Your task to perform on an android device: open app "WhatsApp Messenger" (install if not already installed) Image 0: 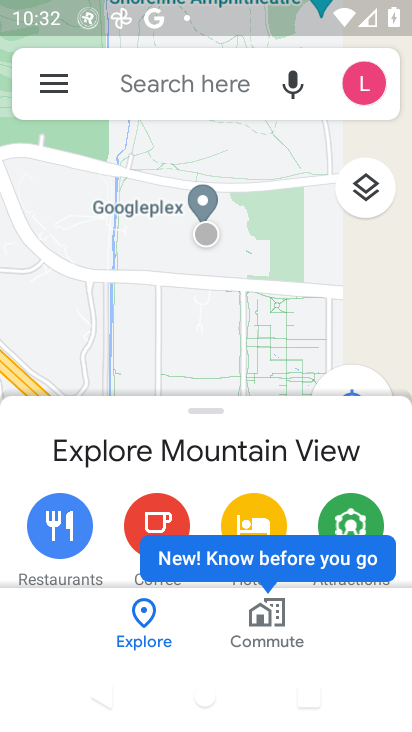
Step 0: press back button
Your task to perform on an android device: open app "WhatsApp Messenger" (install if not already installed) Image 1: 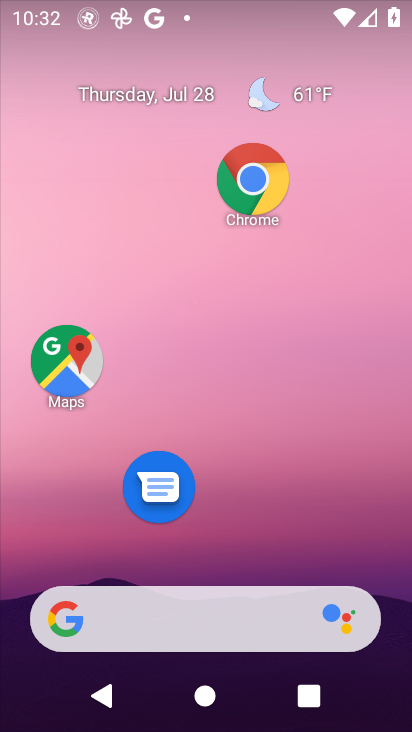
Step 1: drag from (238, 581) to (183, 88)
Your task to perform on an android device: open app "WhatsApp Messenger" (install if not already installed) Image 2: 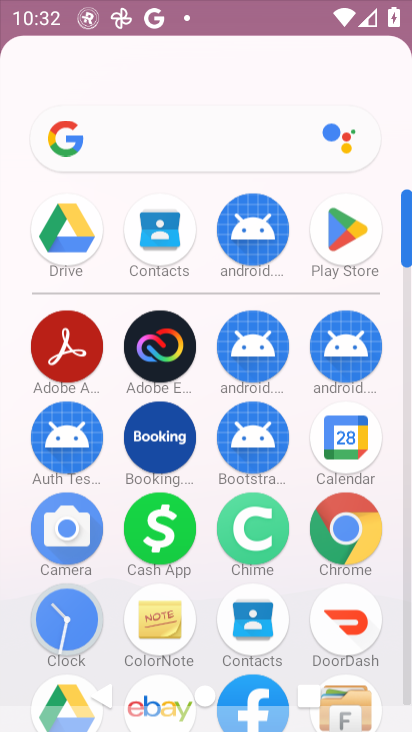
Step 2: drag from (289, 476) to (265, 256)
Your task to perform on an android device: open app "WhatsApp Messenger" (install if not already installed) Image 3: 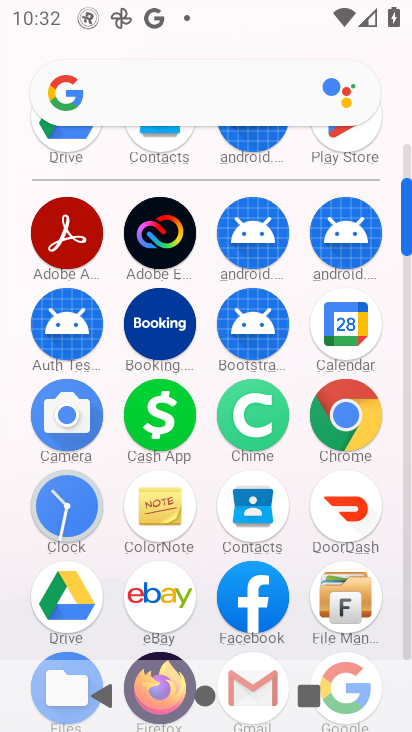
Step 3: click (303, 494)
Your task to perform on an android device: open app "WhatsApp Messenger" (install if not already installed) Image 4: 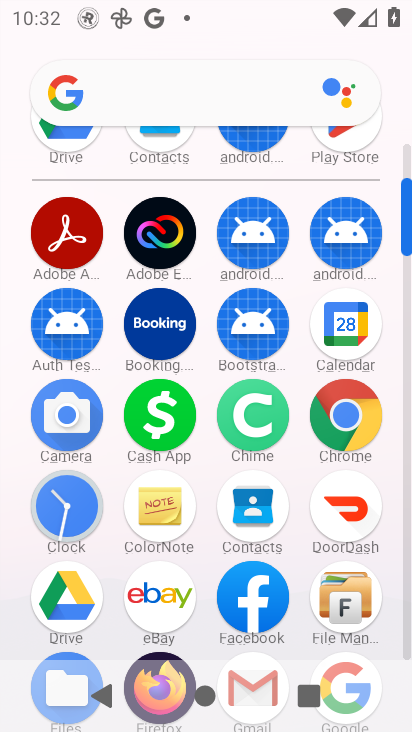
Step 4: drag from (304, 268) to (290, 454)
Your task to perform on an android device: open app "WhatsApp Messenger" (install if not already installed) Image 5: 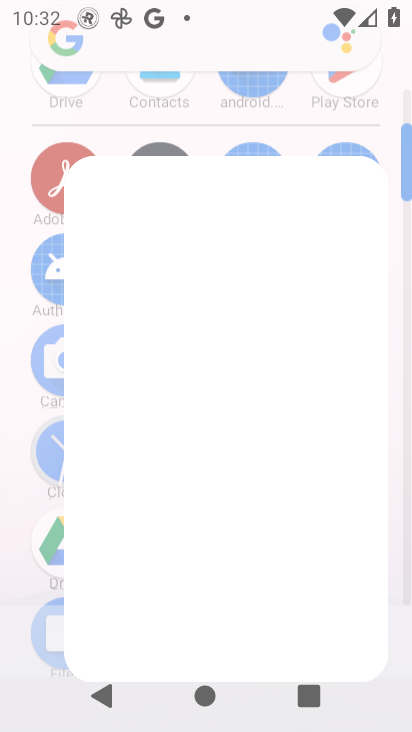
Step 5: drag from (278, 354) to (295, 440)
Your task to perform on an android device: open app "WhatsApp Messenger" (install if not already installed) Image 6: 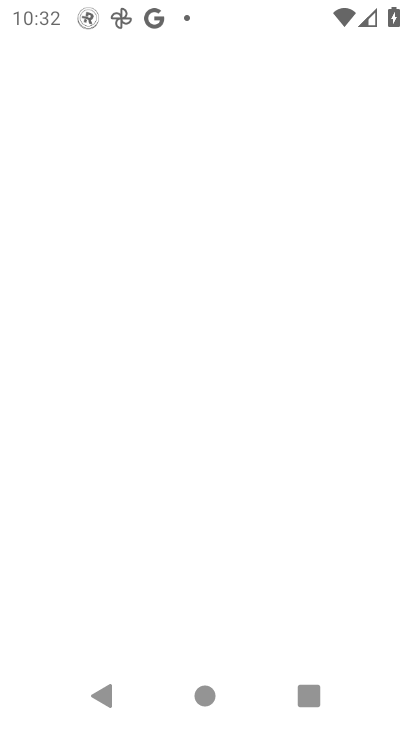
Step 6: press back button
Your task to perform on an android device: open app "WhatsApp Messenger" (install if not already installed) Image 7: 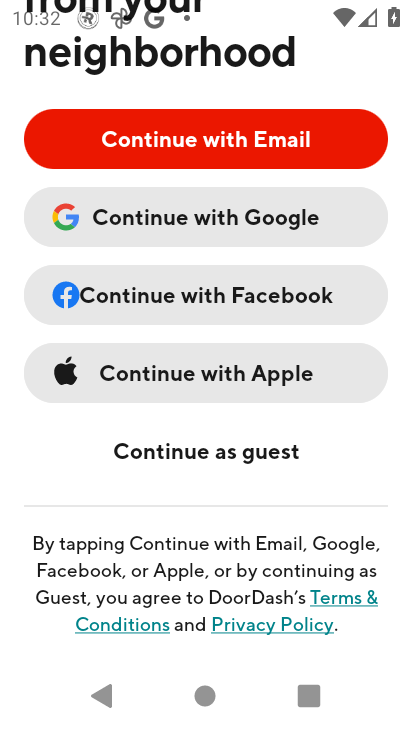
Step 7: press home button
Your task to perform on an android device: open app "WhatsApp Messenger" (install if not already installed) Image 8: 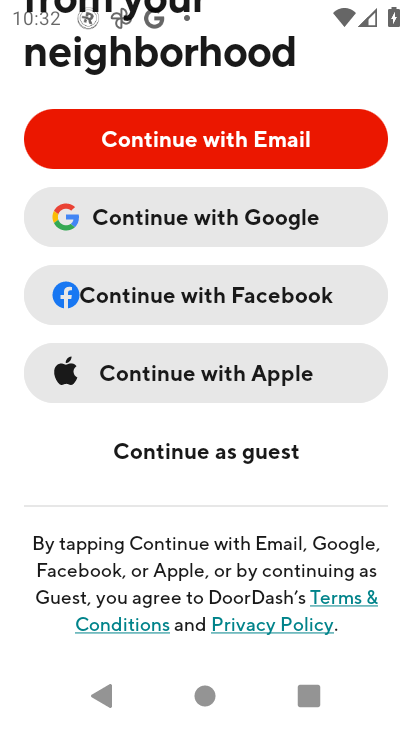
Step 8: press home button
Your task to perform on an android device: open app "WhatsApp Messenger" (install if not already installed) Image 9: 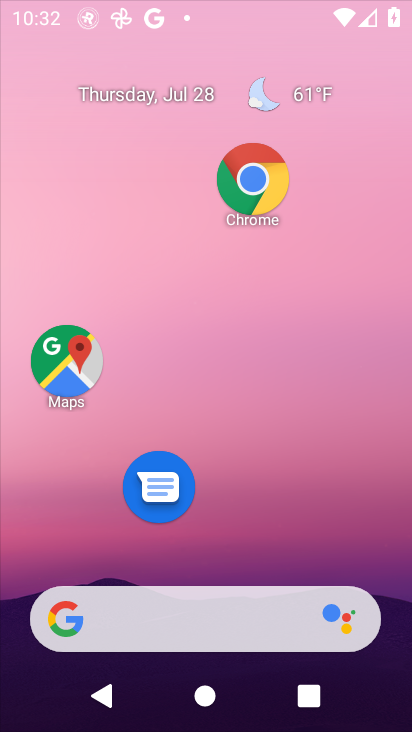
Step 9: press back button
Your task to perform on an android device: open app "WhatsApp Messenger" (install if not already installed) Image 10: 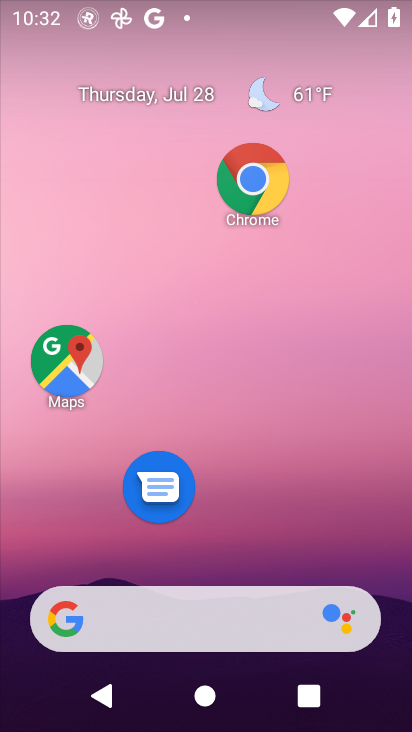
Step 10: click (227, 215)
Your task to perform on an android device: open app "WhatsApp Messenger" (install if not already installed) Image 11: 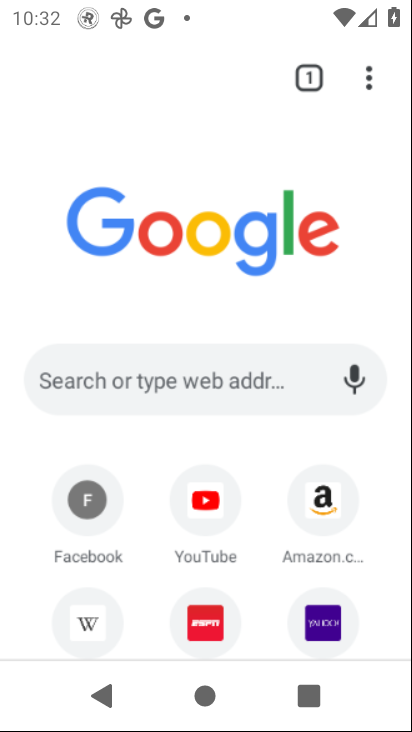
Step 11: drag from (242, 381) to (204, 139)
Your task to perform on an android device: open app "WhatsApp Messenger" (install if not already installed) Image 12: 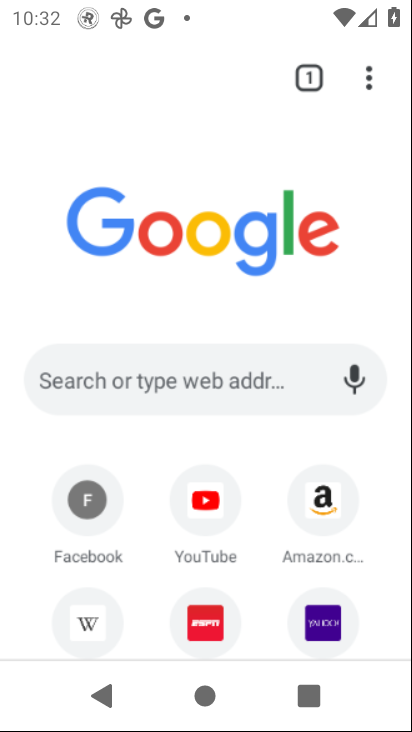
Step 12: press back button
Your task to perform on an android device: open app "WhatsApp Messenger" (install if not already installed) Image 13: 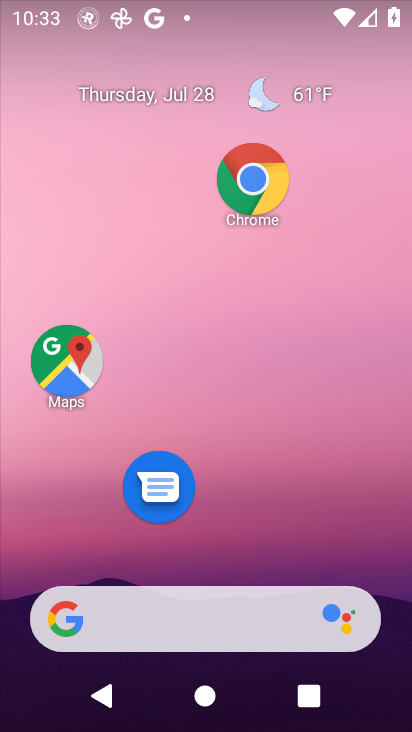
Step 13: drag from (268, 645) to (228, 115)
Your task to perform on an android device: open app "WhatsApp Messenger" (install if not already installed) Image 14: 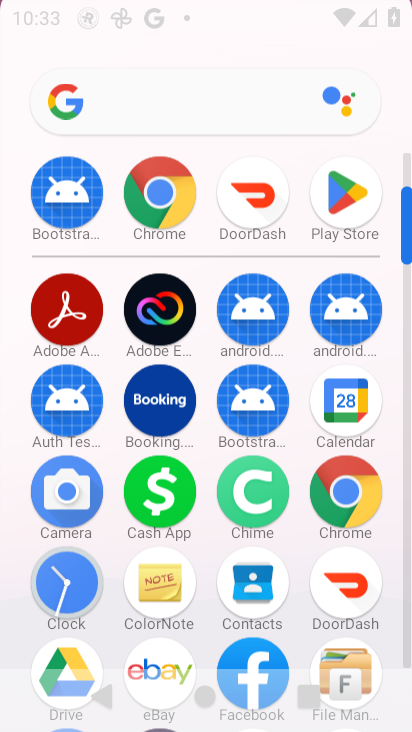
Step 14: drag from (229, 501) to (221, 149)
Your task to perform on an android device: open app "WhatsApp Messenger" (install if not already installed) Image 15: 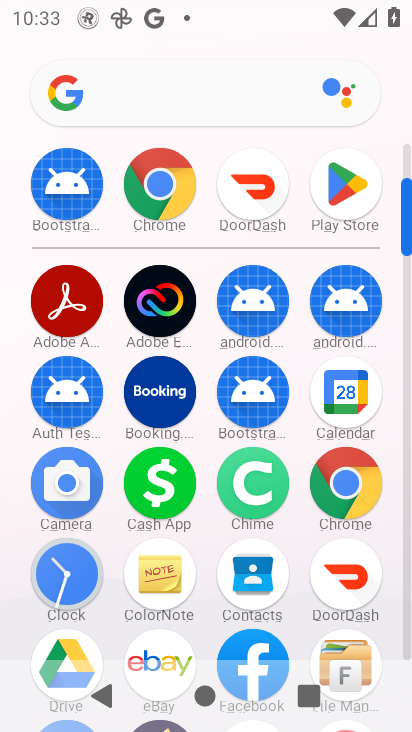
Step 15: drag from (235, 536) to (214, 238)
Your task to perform on an android device: open app "WhatsApp Messenger" (install if not already installed) Image 16: 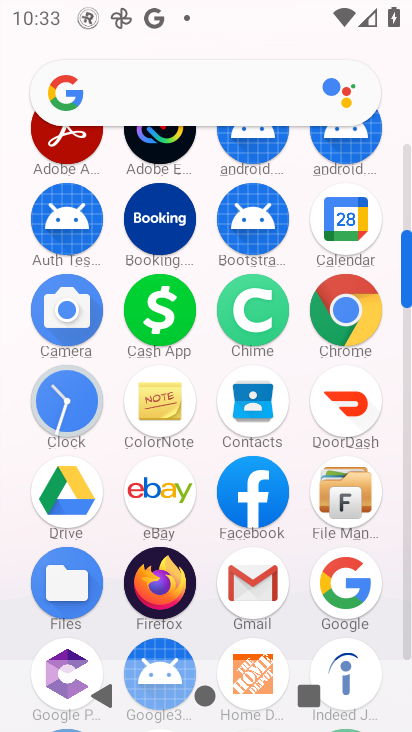
Step 16: click (404, 174)
Your task to perform on an android device: open app "WhatsApp Messenger" (install if not already installed) Image 17: 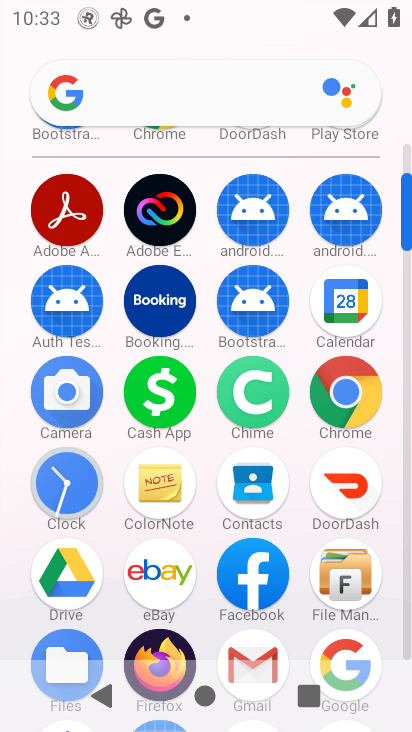
Step 17: click (402, 142)
Your task to perform on an android device: open app "WhatsApp Messenger" (install if not already installed) Image 18: 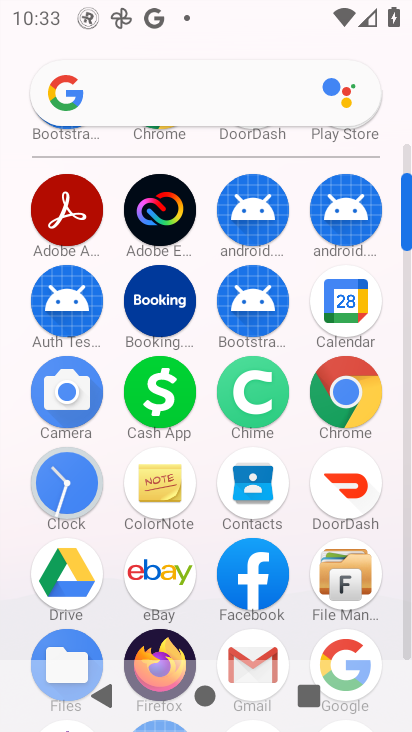
Step 18: click (404, 149)
Your task to perform on an android device: open app "WhatsApp Messenger" (install if not already installed) Image 19: 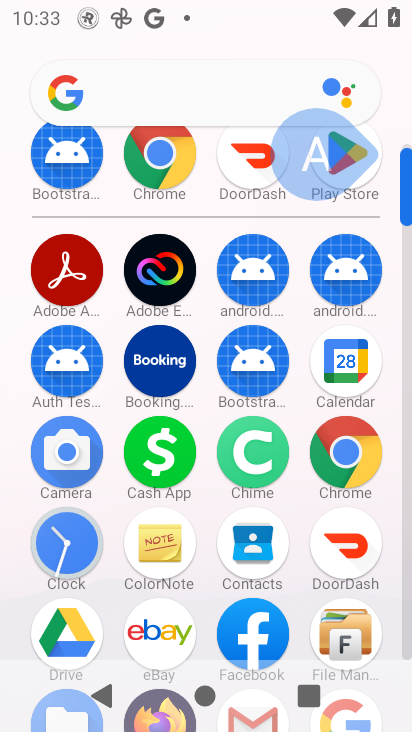
Step 19: click (404, 149)
Your task to perform on an android device: open app "WhatsApp Messenger" (install if not already installed) Image 20: 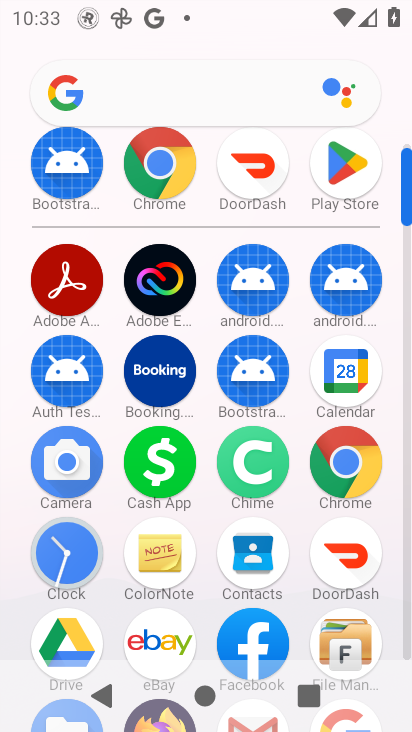
Step 20: click (339, 166)
Your task to perform on an android device: open app "WhatsApp Messenger" (install if not already installed) Image 21: 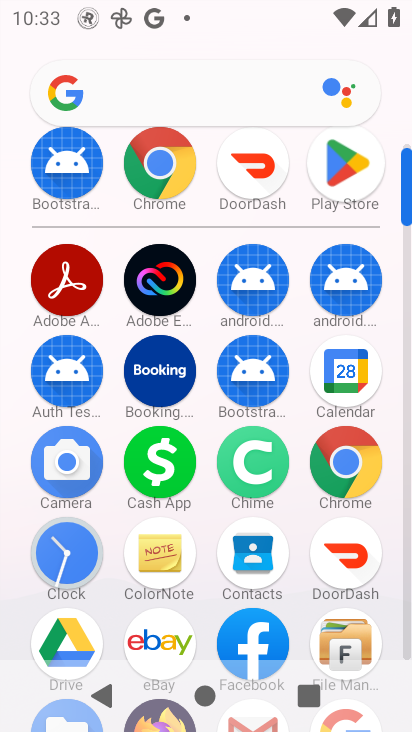
Step 21: click (334, 167)
Your task to perform on an android device: open app "WhatsApp Messenger" (install if not already installed) Image 22: 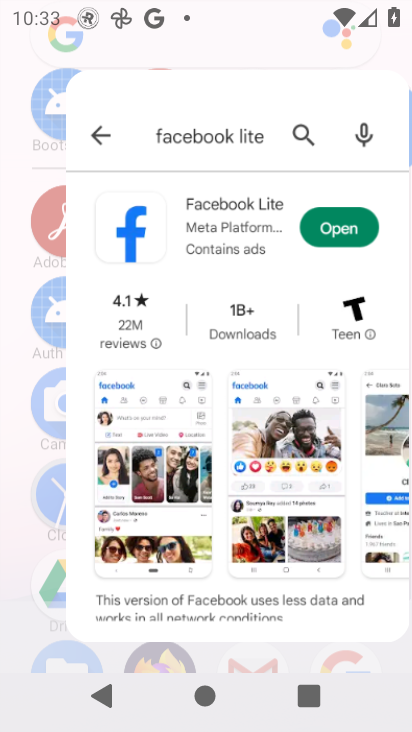
Step 22: click (334, 167)
Your task to perform on an android device: open app "WhatsApp Messenger" (install if not already installed) Image 23: 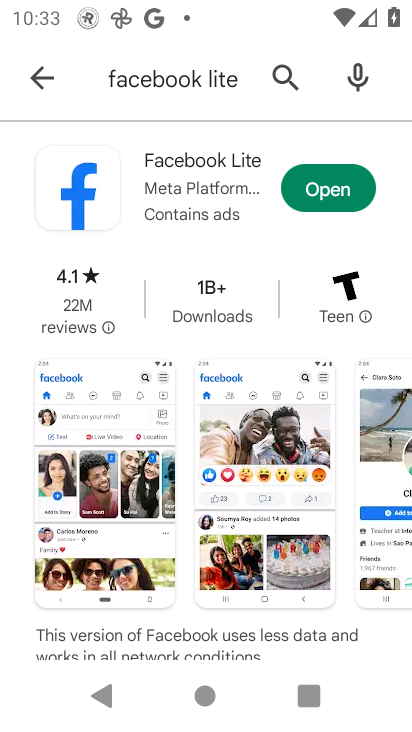
Step 23: click (46, 75)
Your task to perform on an android device: open app "WhatsApp Messenger" (install if not already installed) Image 24: 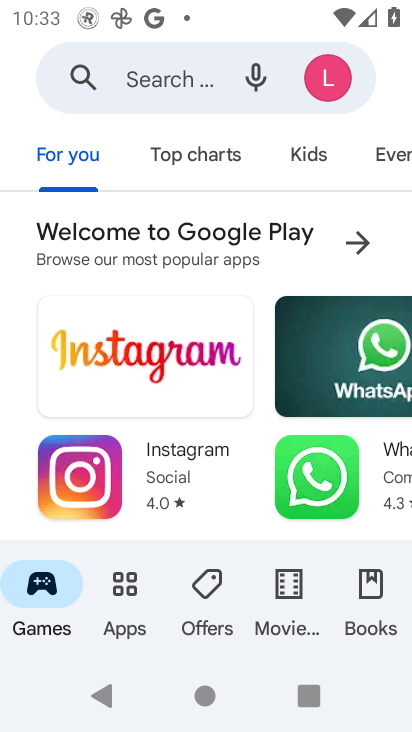
Step 24: click (160, 75)
Your task to perform on an android device: open app "WhatsApp Messenger" (install if not already installed) Image 25: 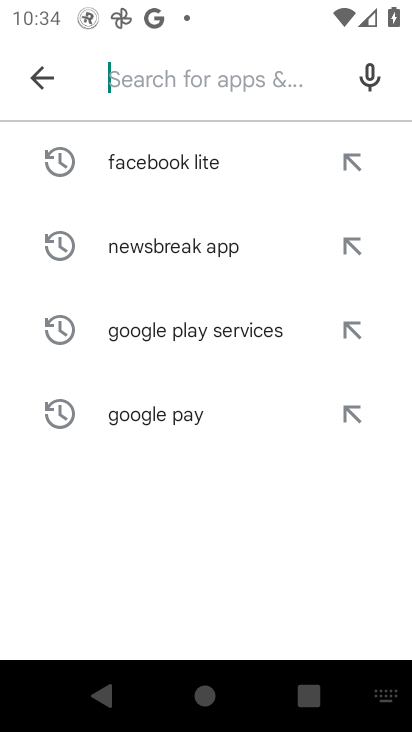
Step 25: type "WhatsApp Messenger"
Your task to perform on an android device: open app "WhatsApp Messenger" (install if not already installed) Image 26: 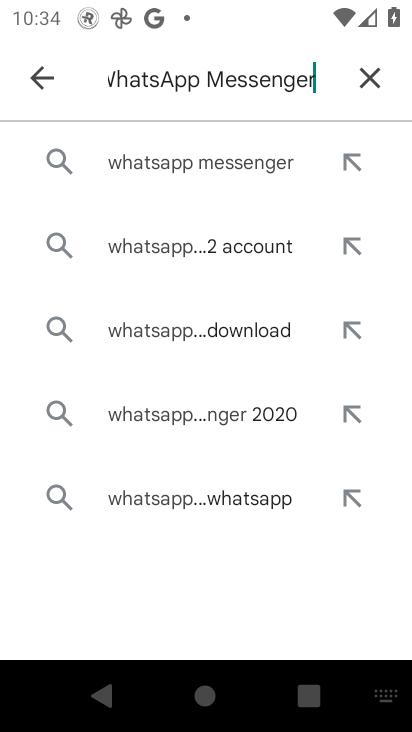
Step 26: type "\"
Your task to perform on an android device: open app "WhatsApp Messenger" (install if not already installed) Image 27: 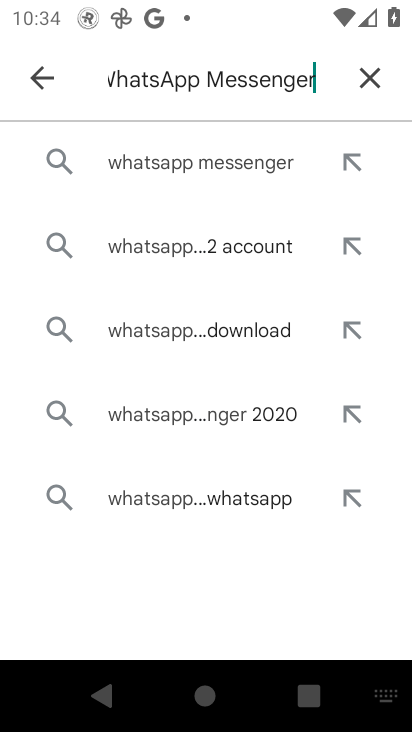
Step 27: click (258, 173)
Your task to perform on an android device: open app "WhatsApp Messenger" (install if not already installed) Image 28: 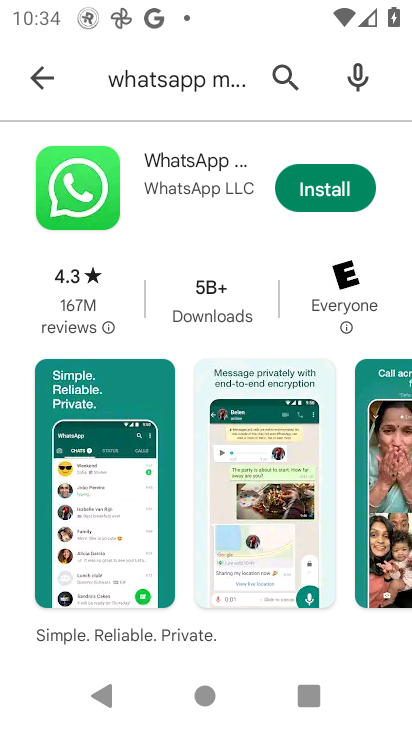
Step 28: click (335, 188)
Your task to perform on an android device: open app "WhatsApp Messenger" (install if not already installed) Image 29: 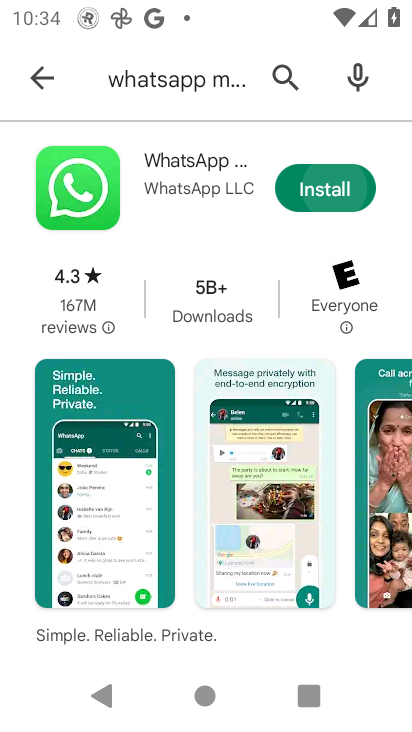
Step 29: click (334, 188)
Your task to perform on an android device: open app "WhatsApp Messenger" (install if not already installed) Image 30: 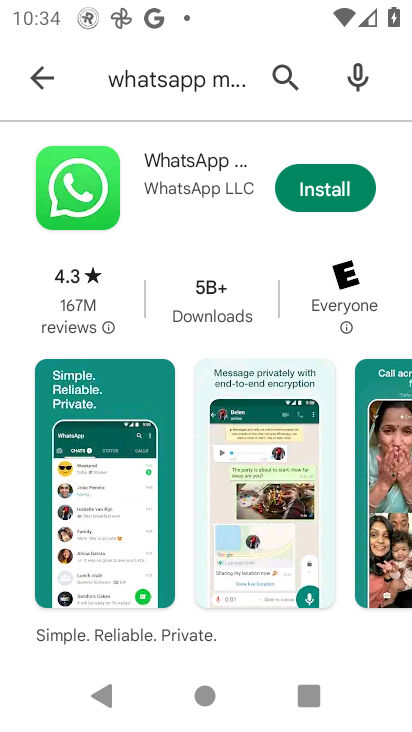
Step 30: click (338, 184)
Your task to perform on an android device: open app "WhatsApp Messenger" (install if not already installed) Image 31: 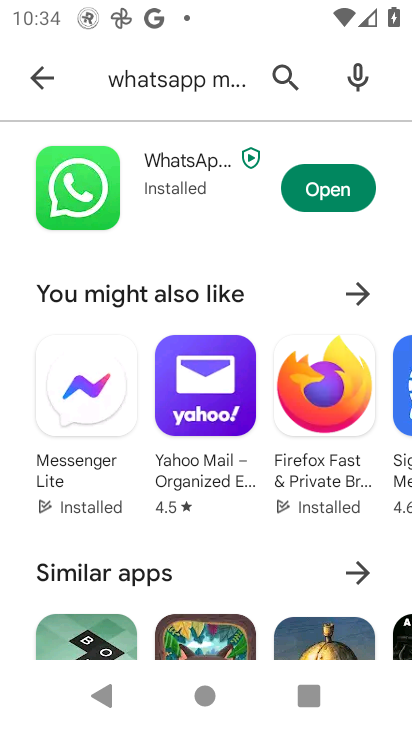
Step 31: click (331, 193)
Your task to perform on an android device: open app "WhatsApp Messenger" (install if not already installed) Image 32: 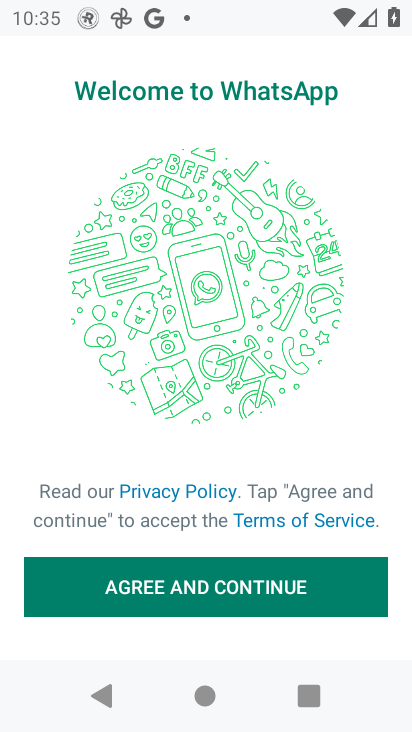
Step 32: click (238, 584)
Your task to perform on an android device: open app "WhatsApp Messenger" (install if not already installed) Image 33: 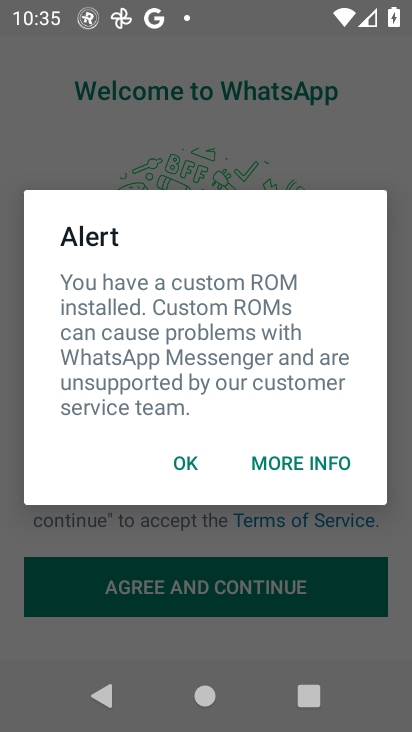
Step 33: click (184, 461)
Your task to perform on an android device: open app "WhatsApp Messenger" (install if not already installed) Image 34: 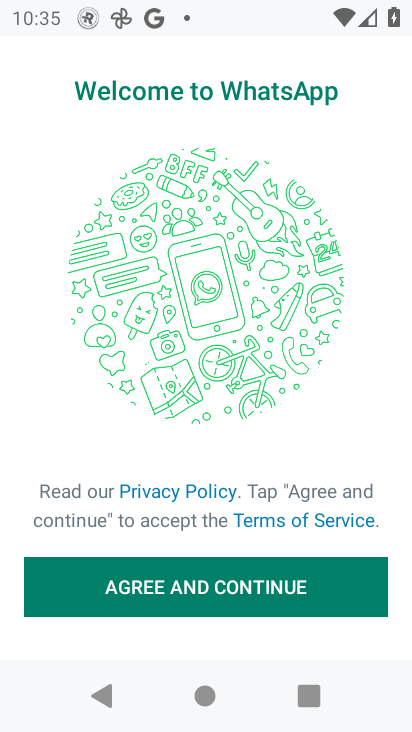
Step 34: click (219, 584)
Your task to perform on an android device: open app "WhatsApp Messenger" (install if not already installed) Image 35: 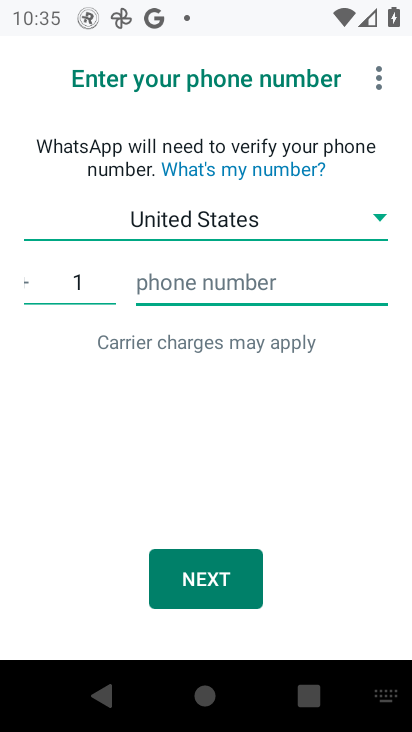
Step 35: task complete